Your task to perform on an android device: Is it going to rain tomorrow? Image 0: 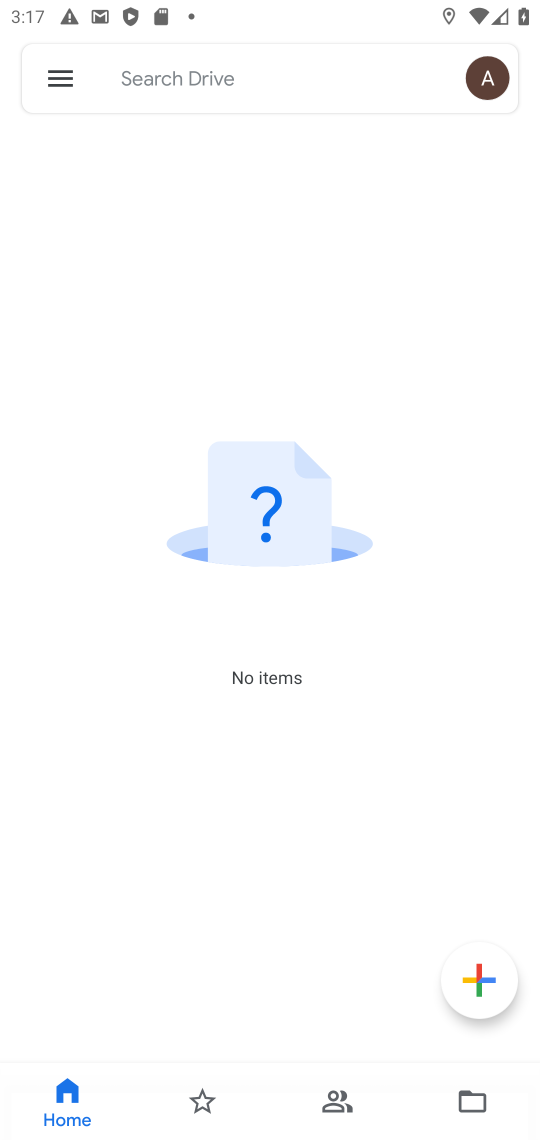
Step 0: press home button
Your task to perform on an android device: Is it going to rain tomorrow? Image 1: 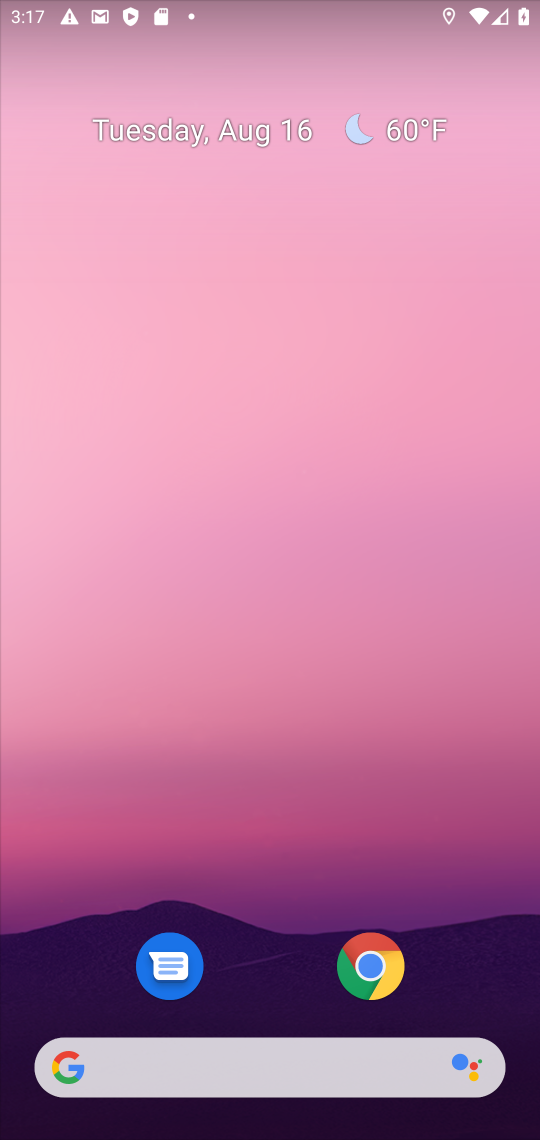
Step 1: click (142, 1049)
Your task to perform on an android device: Is it going to rain tomorrow? Image 2: 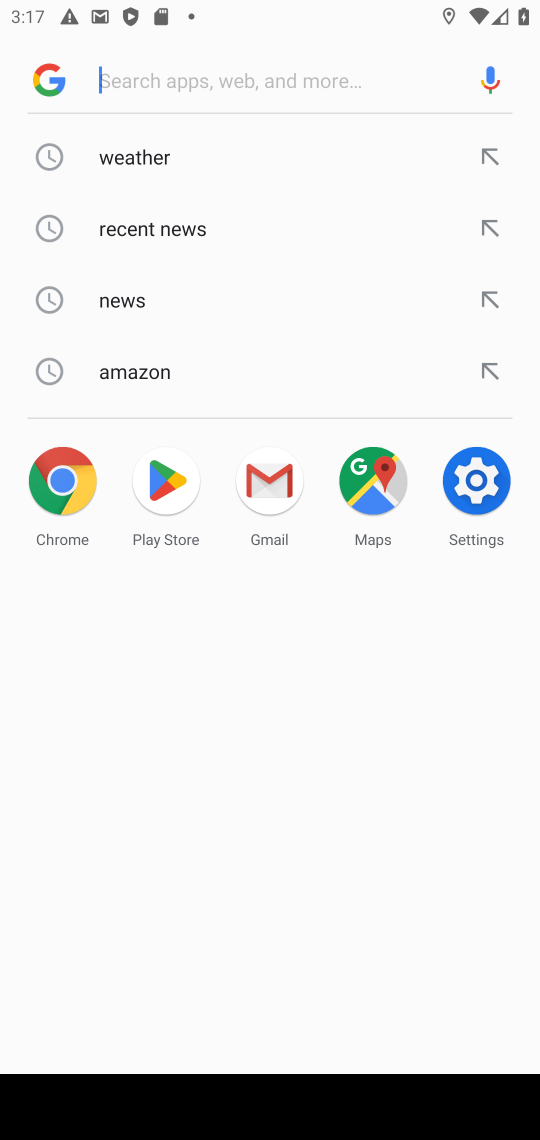
Step 2: type "Is it going to rain tomorrow?"
Your task to perform on an android device: Is it going to rain tomorrow? Image 3: 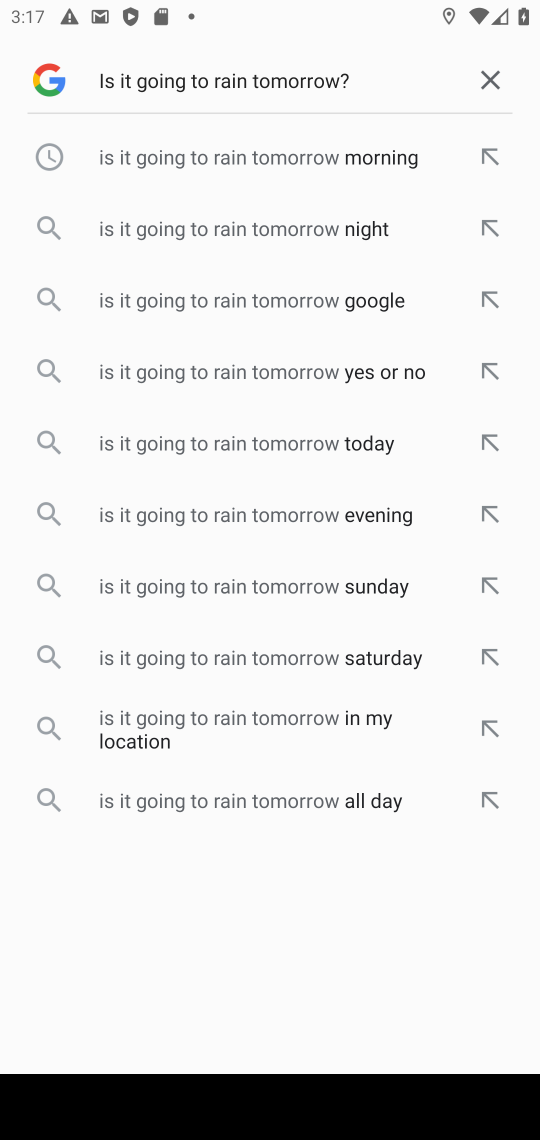
Step 3: type ""
Your task to perform on an android device: Is it going to rain tomorrow? Image 4: 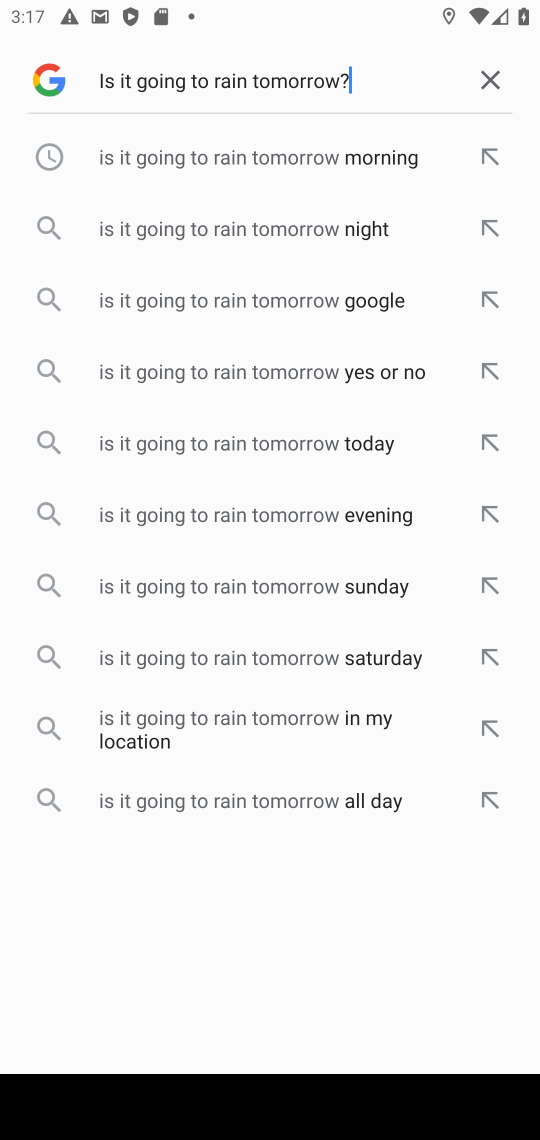
Step 4: type ""
Your task to perform on an android device: Is it going to rain tomorrow? Image 5: 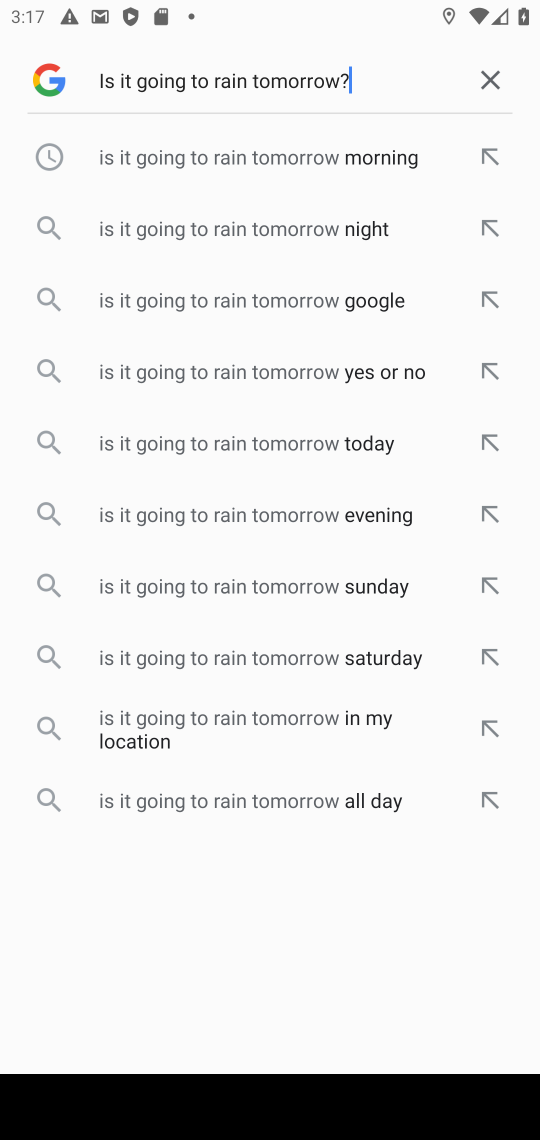
Step 5: task complete